Your task to perform on an android device: Show me productivity apps on the Play Store Image 0: 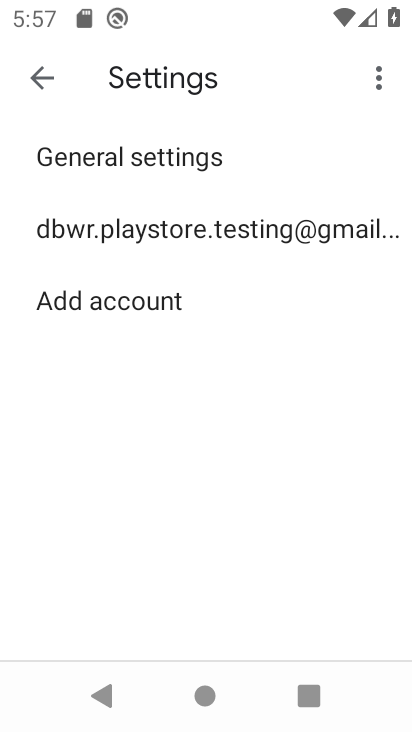
Step 0: press home button
Your task to perform on an android device: Show me productivity apps on the Play Store Image 1: 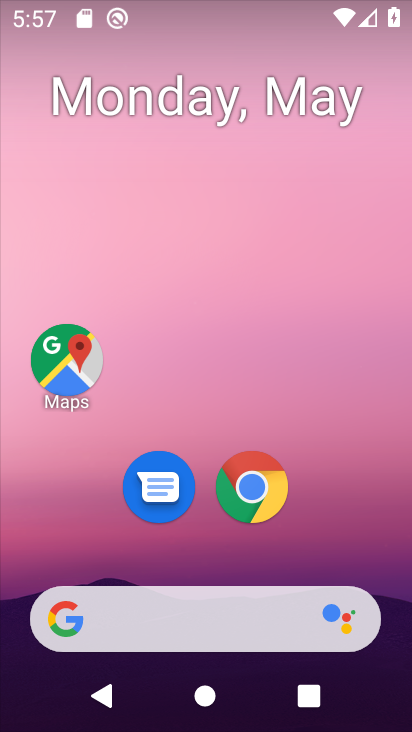
Step 1: drag from (212, 562) to (270, 85)
Your task to perform on an android device: Show me productivity apps on the Play Store Image 2: 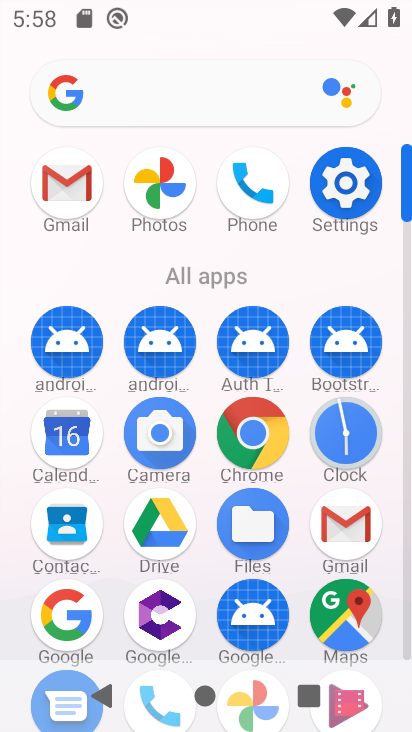
Step 2: drag from (202, 570) to (241, 176)
Your task to perform on an android device: Show me productivity apps on the Play Store Image 3: 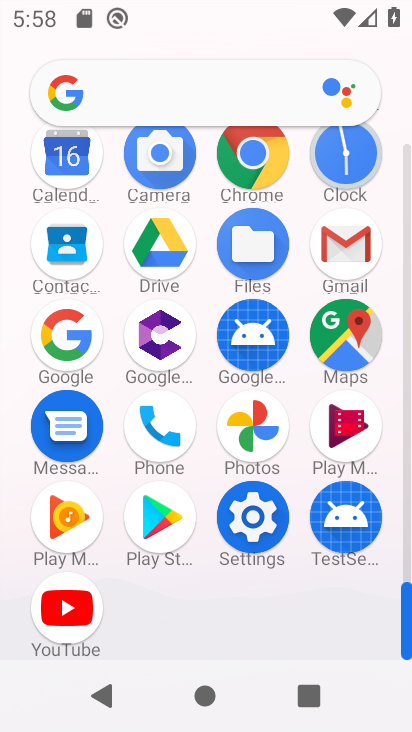
Step 3: click (167, 517)
Your task to perform on an android device: Show me productivity apps on the Play Store Image 4: 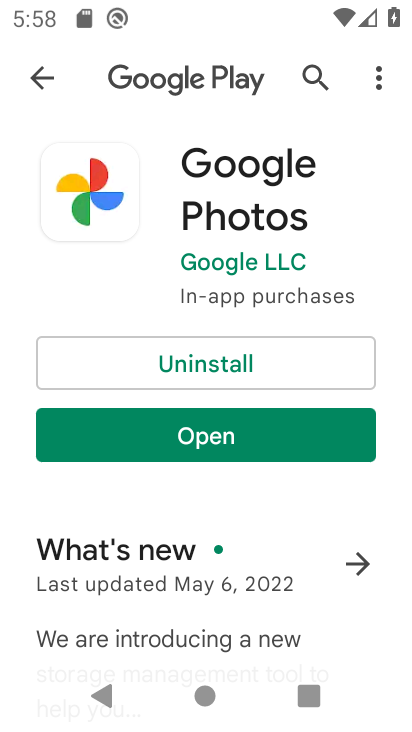
Step 4: click (47, 80)
Your task to perform on an android device: Show me productivity apps on the Play Store Image 5: 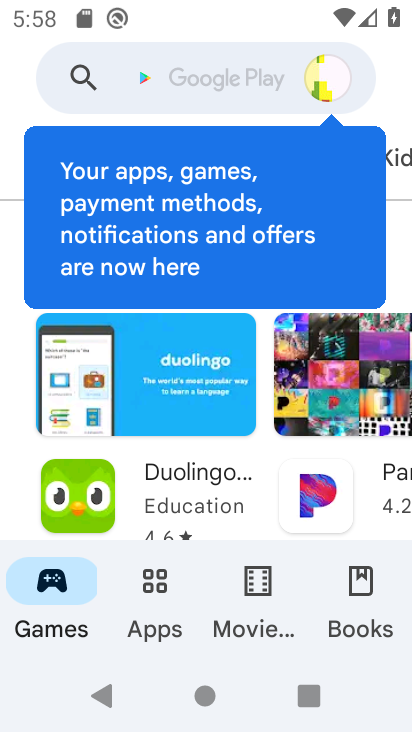
Step 5: click (165, 591)
Your task to perform on an android device: Show me productivity apps on the Play Store Image 6: 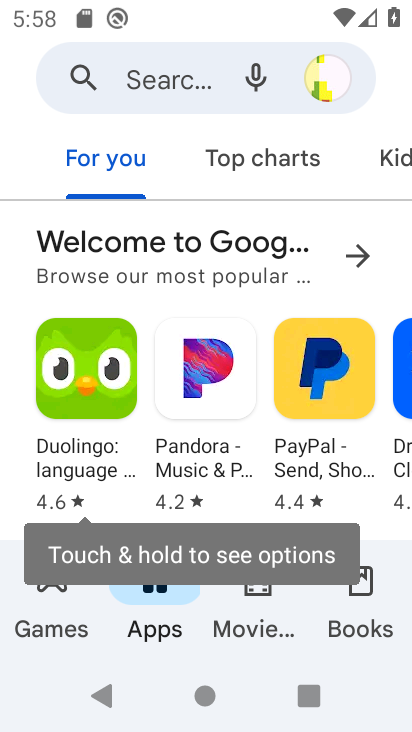
Step 6: click (143, 76)
Your task to perform on an android device: Show me productivity apps on the Play Store Image 7: 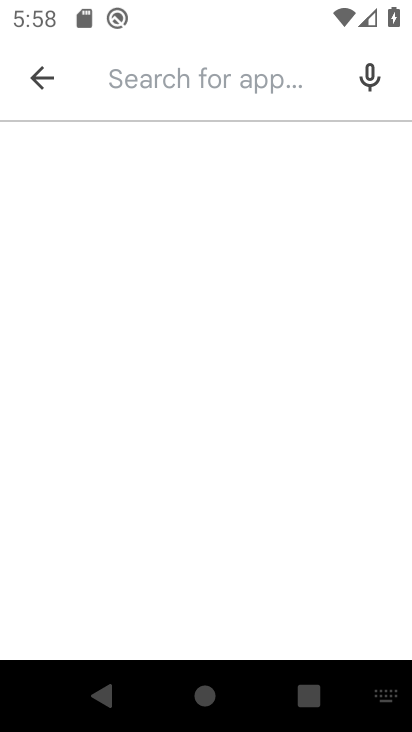
Step 7: click (43, 77)
Your task to perform on an android device: Show me productivity apps on the Play Store Image 8: 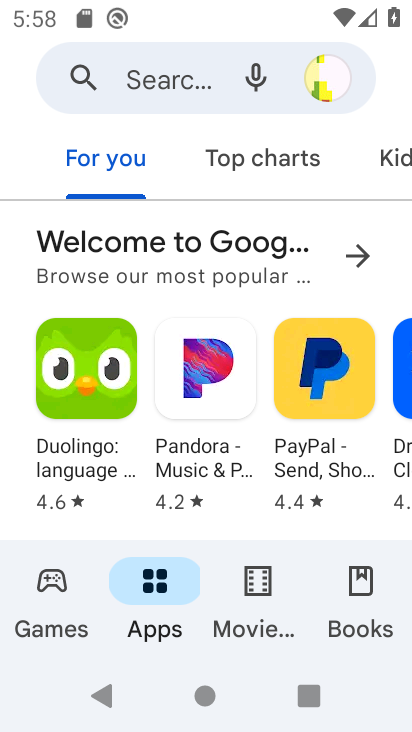
Step 8: drag from (375, 155) to (1, 165)
Your task to perform on an android device: Show me productivity apps on the Play Store Image 9: 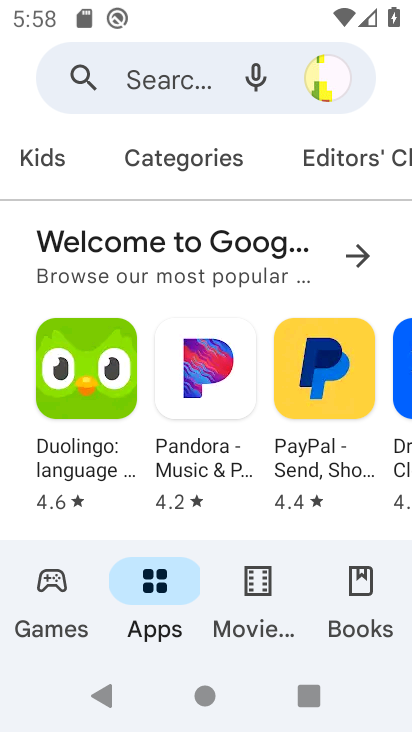
Step 9: click (200, 171)
Your task to perform on an android device: Show me productivity apps on the Play Store Image 10: 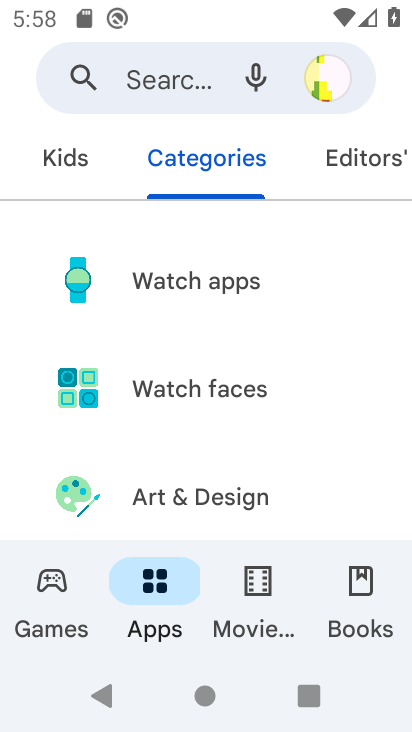
Step 10: drag from (203, 513) to (209, 110)
Your task to perform on an android device: Show me productivity apps on the Play Store Image 11: 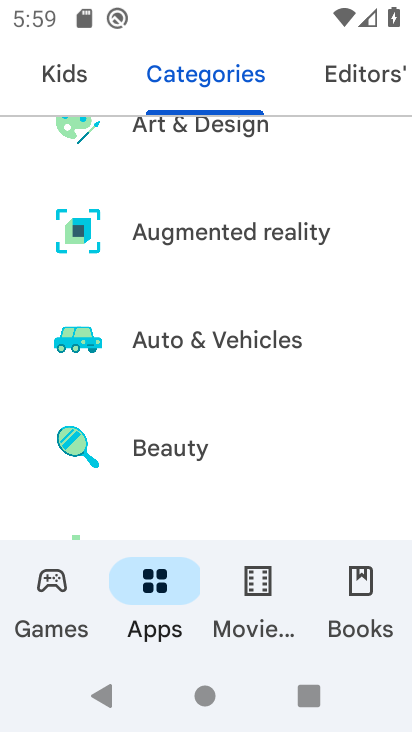
Step 11: drag from (174, 487) to (203, 197)
Your task to perform on an android device: Show me productivity apps on the Play Store Image 12: 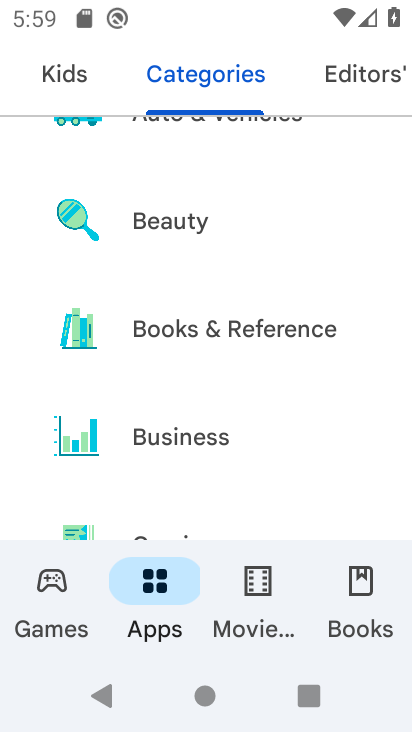
Step 12: drag from (222, 474) to (236, 65)
Your task to perform on an android device: Show me productivity apps on the Play Store Image 13: 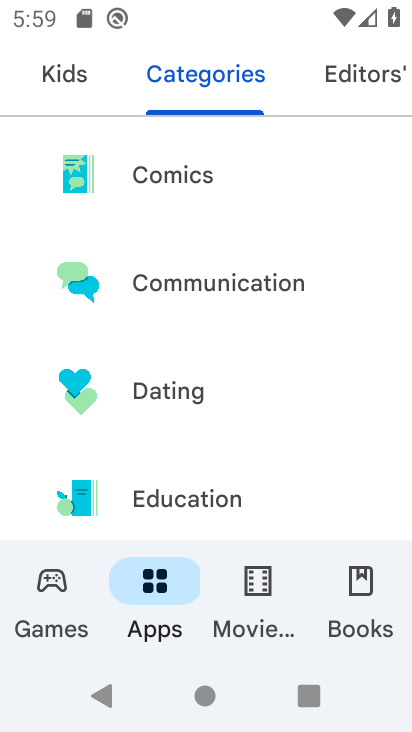
Step 13: drag from (196, 529) to (259, 49)
Your task to perform on an android device: Show me productivity apps on the Play Store Image 14: 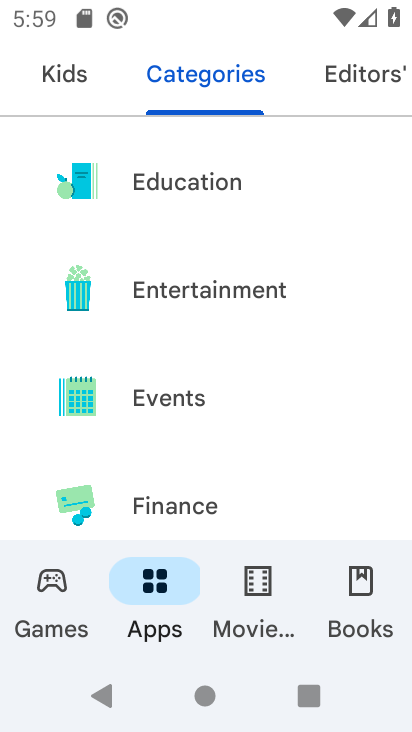
Step 14: drag from (201, 531) to (243, 38)
Your task to perform on an android device: Show me productivity apps on the Play Store Image 15: 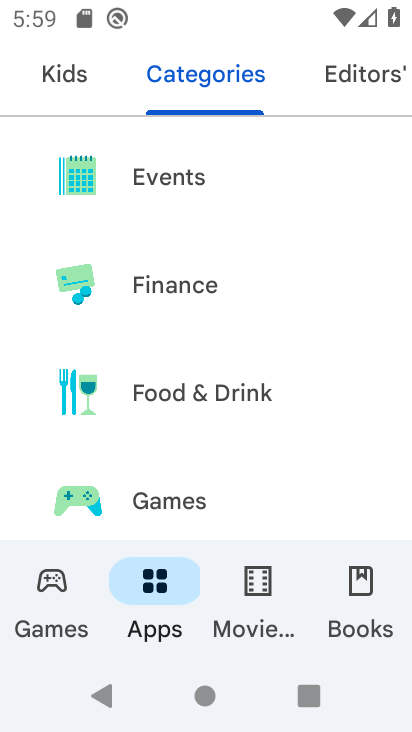
Step 15: drag from (201, 485) to (225, 94)
Your task to perform on an android device: Show me productivity apps on the Play Store Image 16: 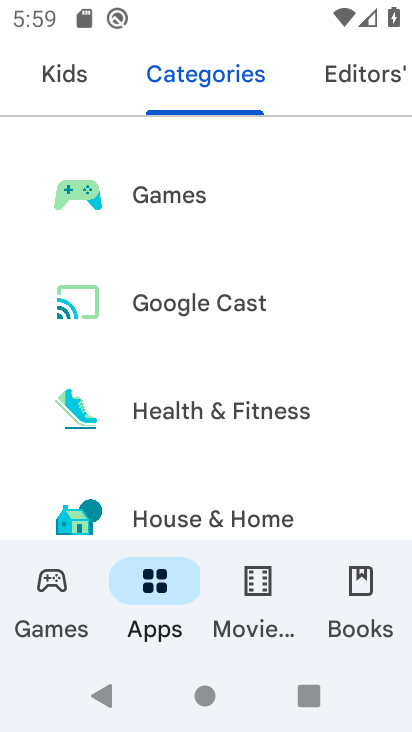
Step 16: drag from (200, 497) to (219, 73)
Your task to perform on an android device: Show me productivity apps on the Play Store Image 17: 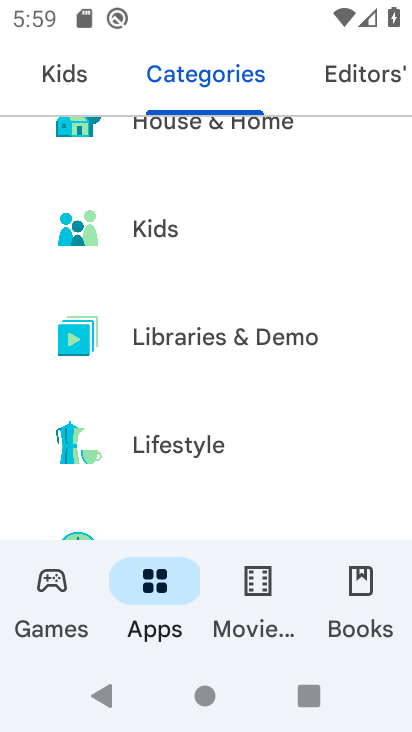
Step 17: drag from (182, 499) to (188, 1)
Your task to perform on an android device: Show me productivity apps on the Play Store Image 18: 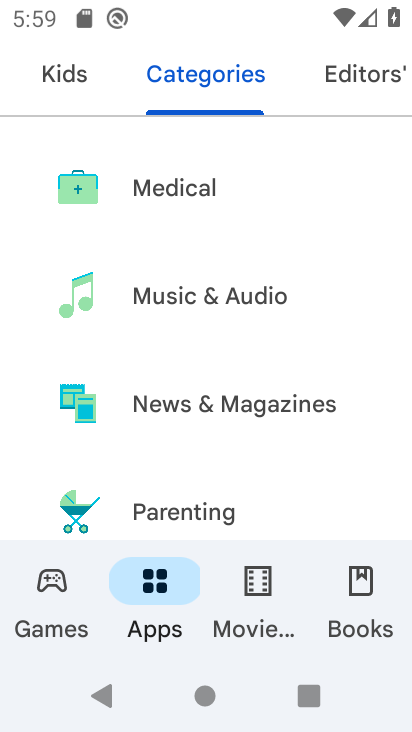
Step 18: drag from (164, 498) to (195, 58)
Your task to perform on an android device: Show me productivity apps on the Play Store Image 19: 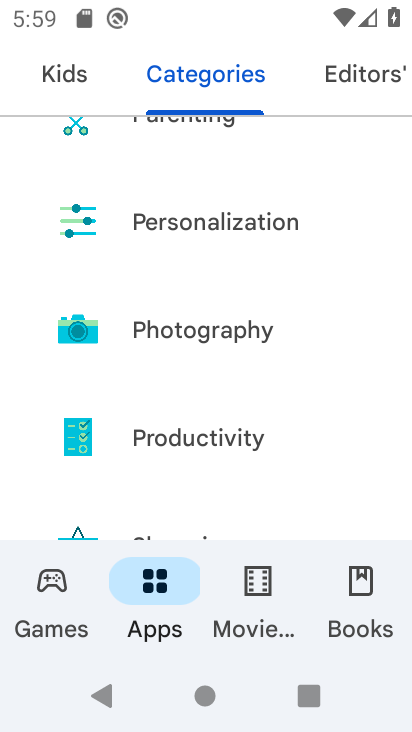
Step 19: click (187, 433)
Your task to perform on an android device: Show me productivity apps on the Play Store Image 20: 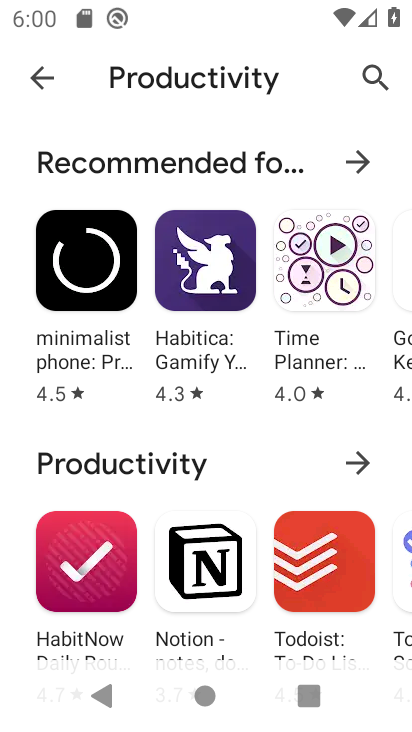
Step 20: task complete